Your task to perform on an android device: Go to network settings Image 0: 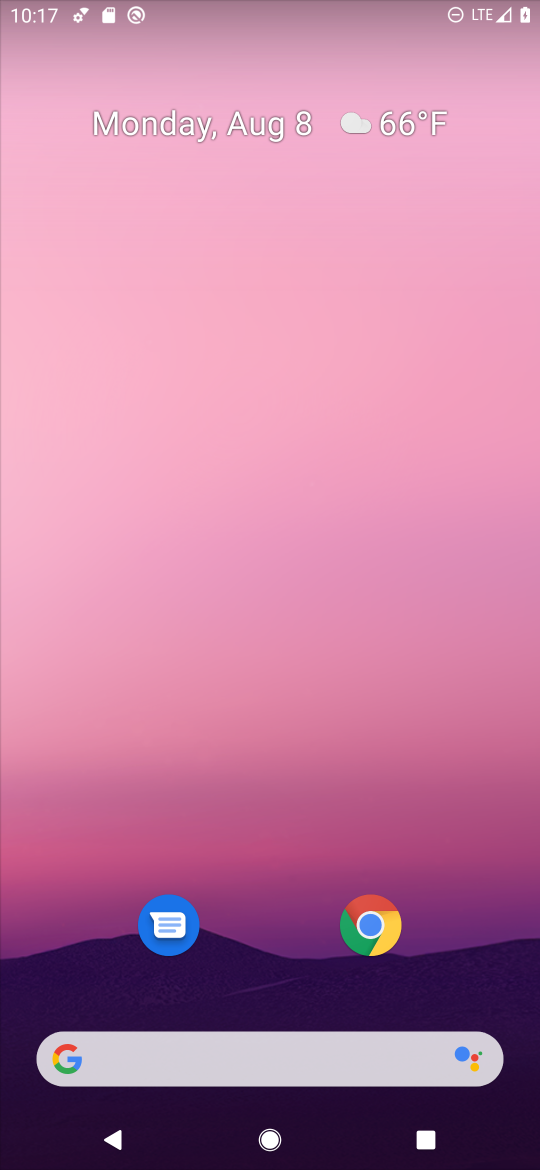
Step 0: drag from (263, 737) to (250, 167)
Your task to perform on an android device: Go to network settings Image 1: 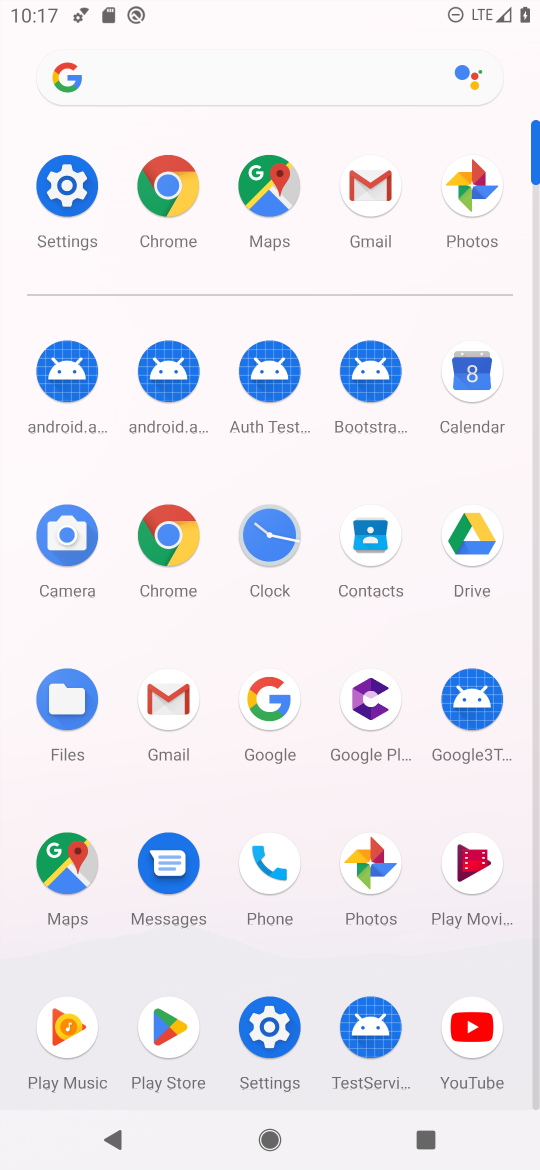
Step 1: click (277, 1030)
Your task to perform on an android device: Go to network settings Image 2: 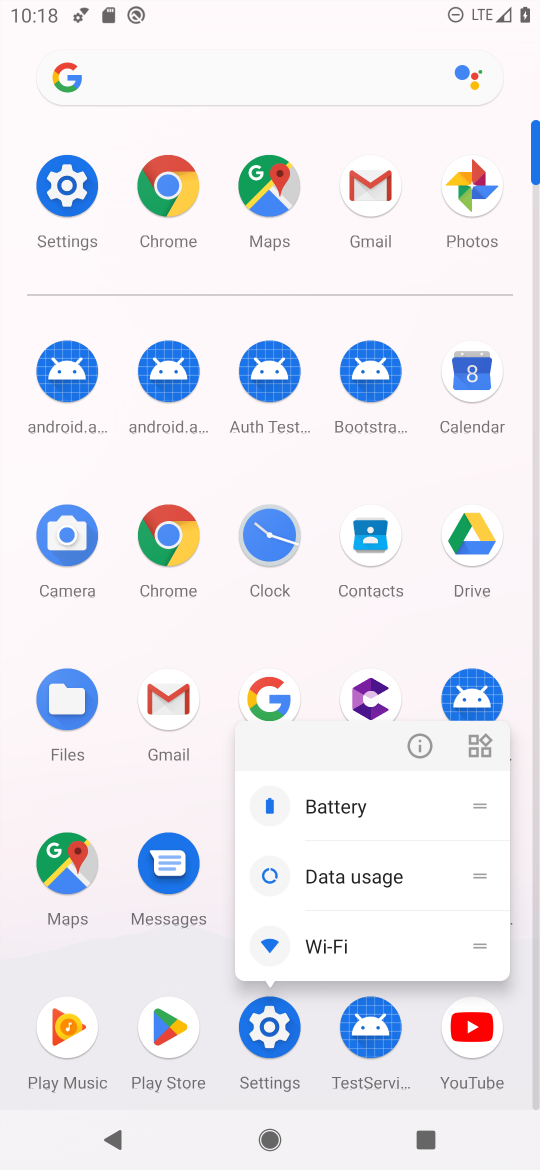
Step 2: click (272, 1031)
Your task to perform on an android device: Go to network settings Image 3: 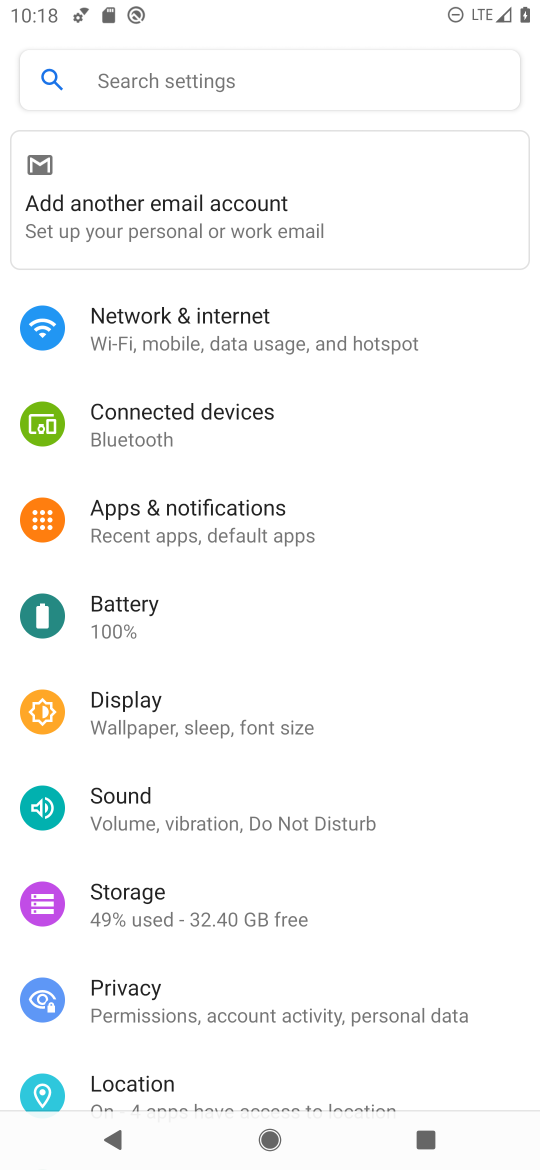
Step 3: click (155, 361)
Your task to perform on an android device: Go to network settings Image 4: 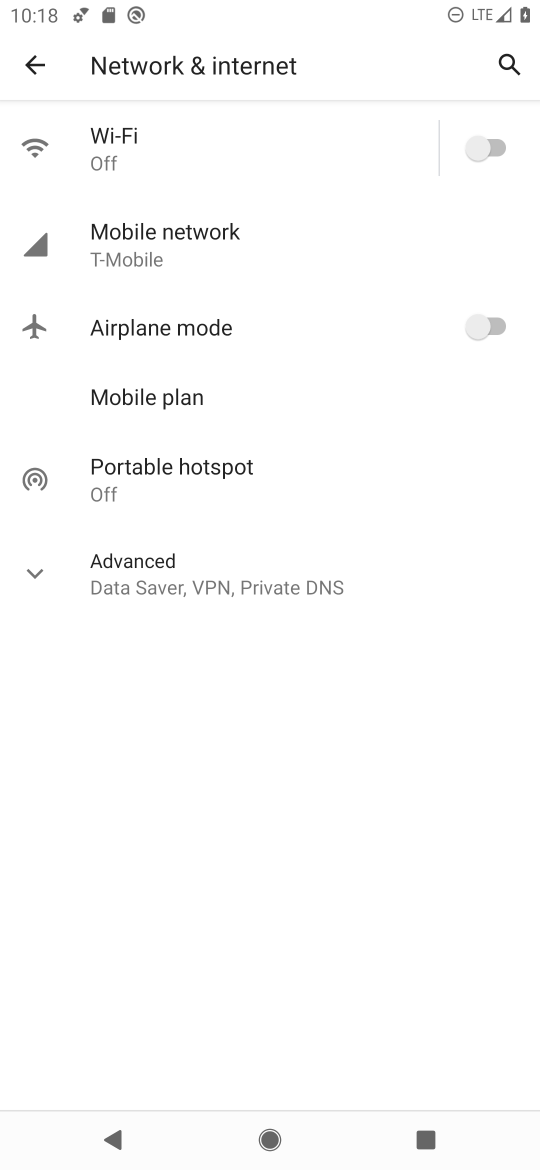
Step 4: task complete